Your task to perform on an android device: Search for Italian restaurants on Maps Image 0: 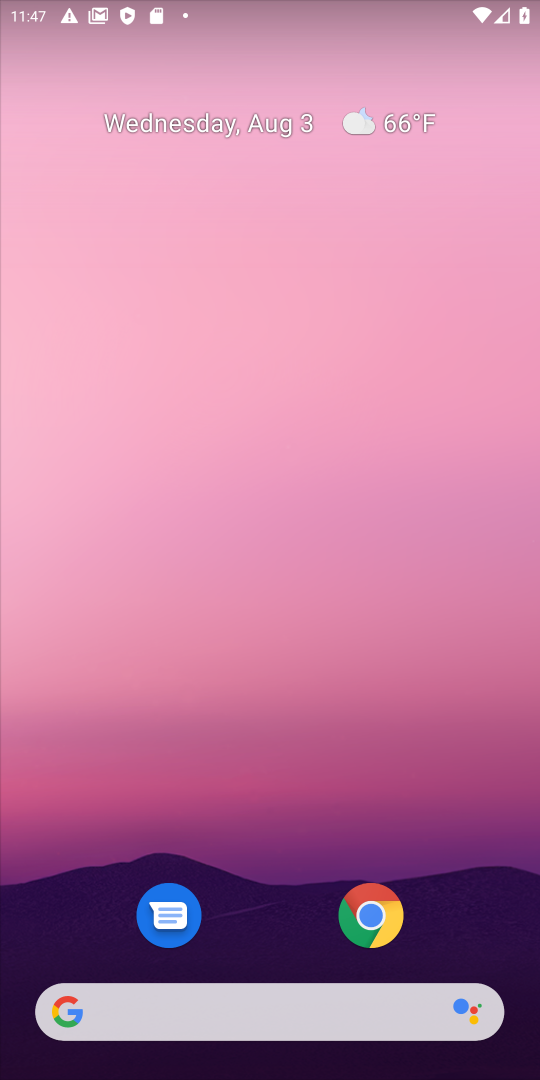
Step 0: drag from (245, 893) to (231, 207)
Your task to perform on an android device: Search for Italian restaurants on Maps Image 1: 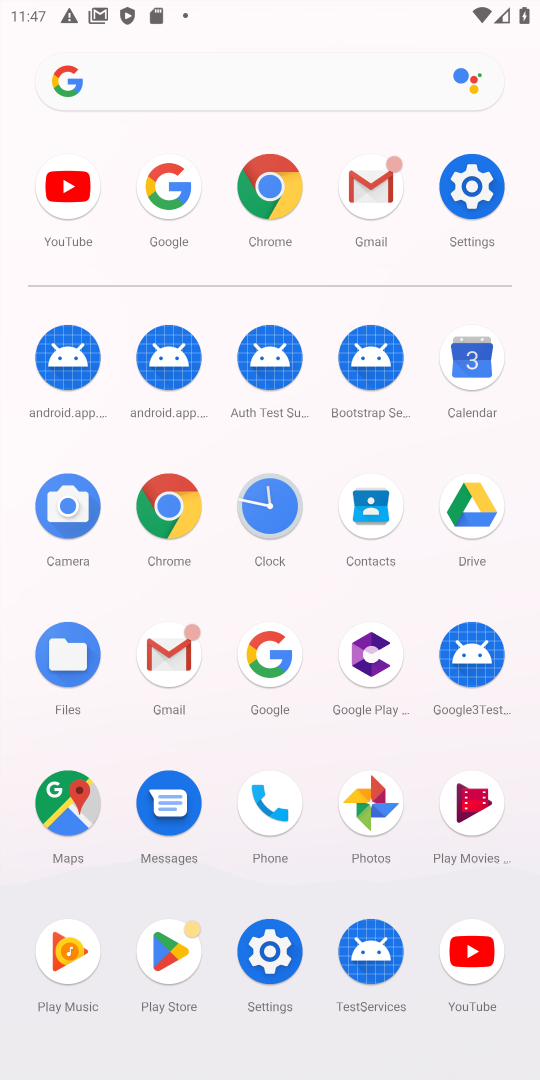
Step 1: click (466, 190)
Your task to perform on an android device: Search for Italian restaurants on Maps Image 2: 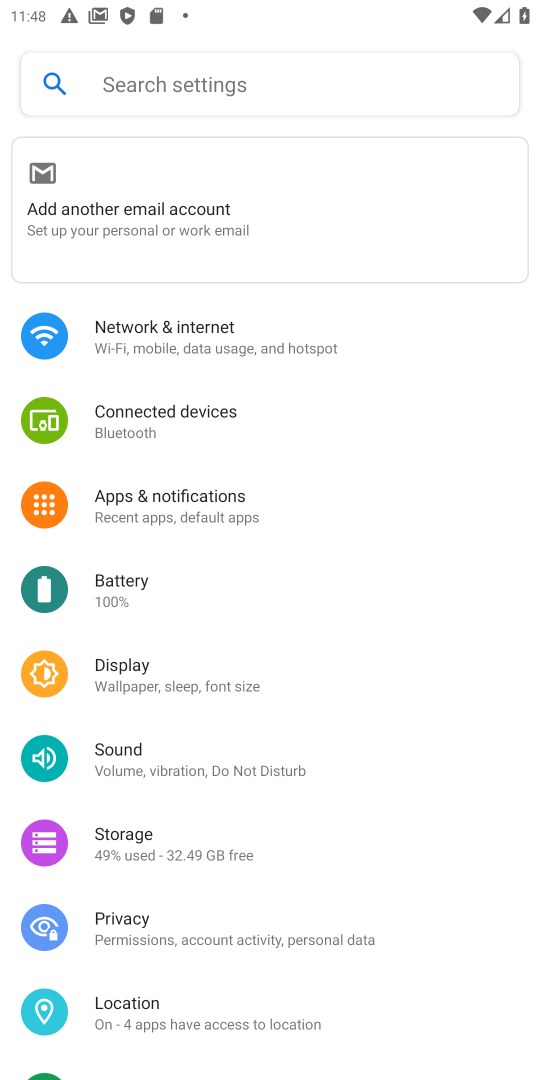
Step 2: drag from (174, 978) to (166, 419)
Your task to perform on an android device: Search for Italian restaurants on Maps Image 3: 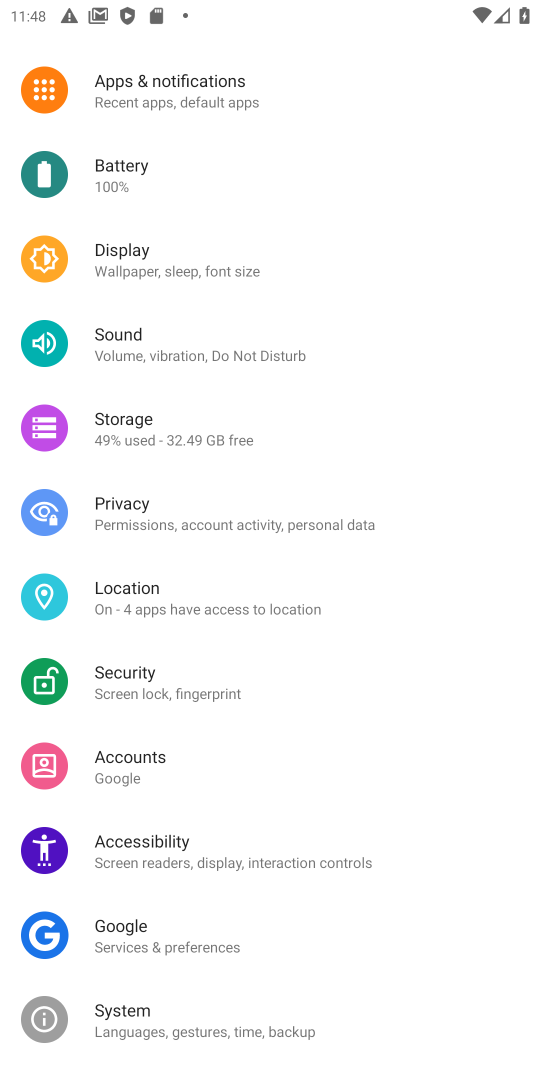
Step 3: press back button
Your task to perform on an android device: Search for Italian restaurants on Maps Image 4: 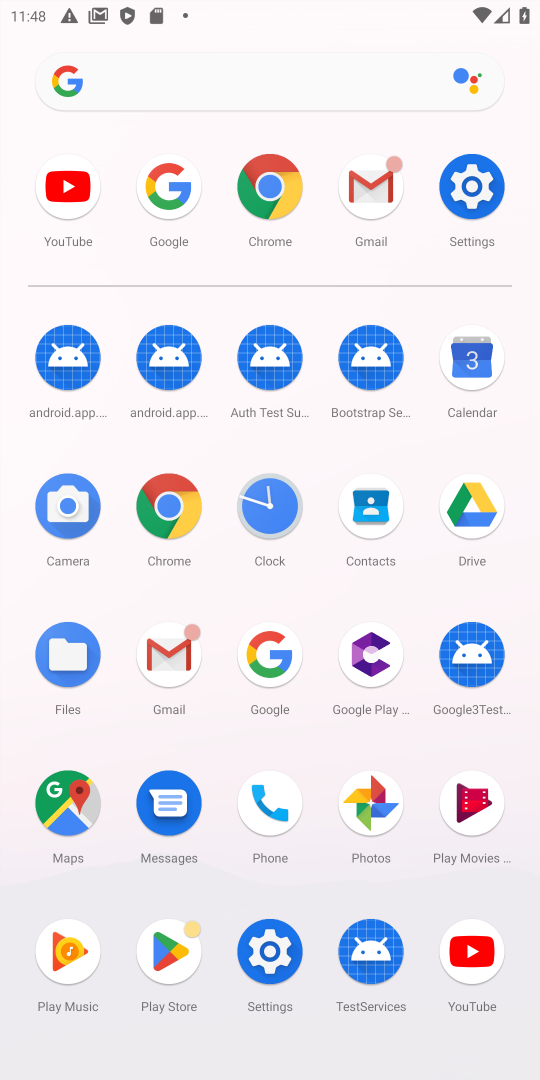
Step 4: click (59, 832)
Your task to perform on an android device: Search for Italian restaurants on Maps Image 5: 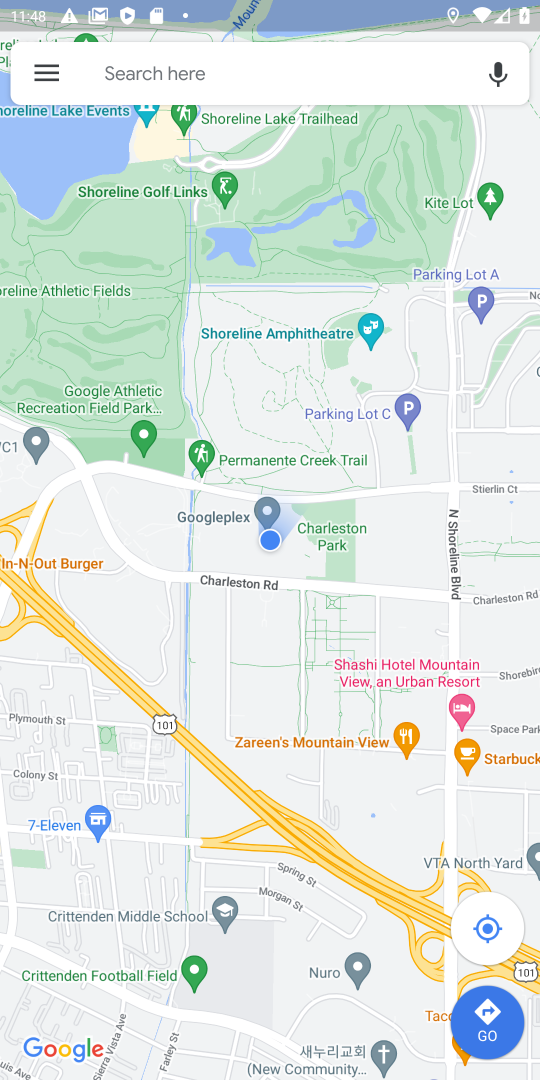
Step 5: click (188, 78)
Your task to perform on an android device: Search for Italian restaurants on Maps Image 6: 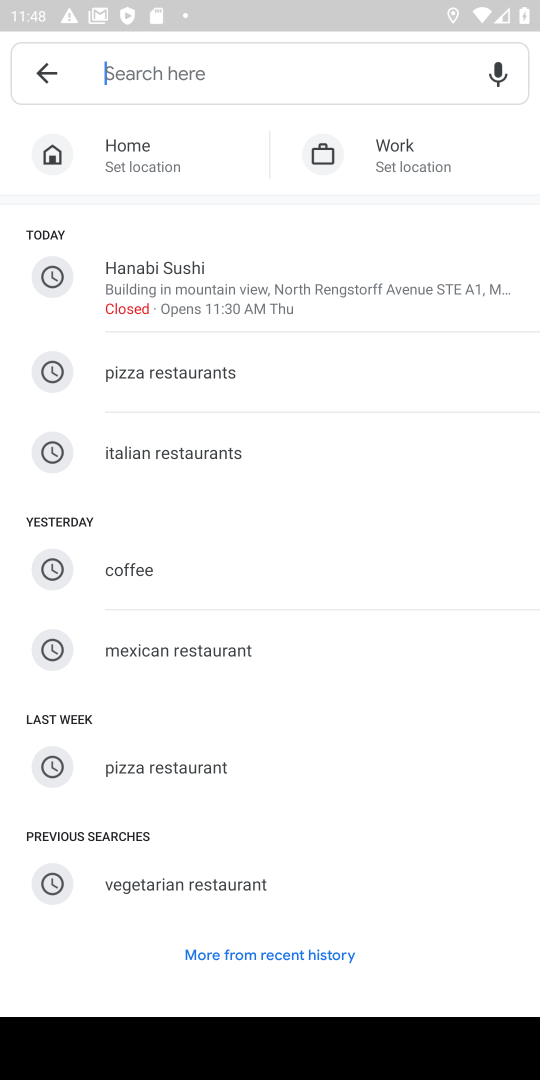
Step 6: click (157, 456)
Your task to perform on an android device: Search for Italian restaurants on Maps Image 7: 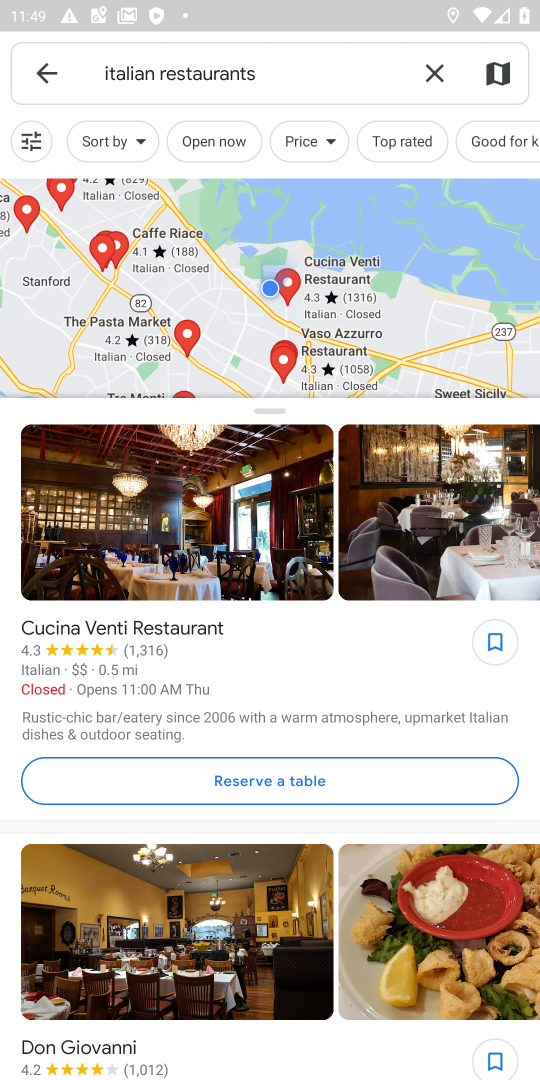
Step 7: task complete